Your task to perform on an android device: snooze an email in the gmail app Image 0: 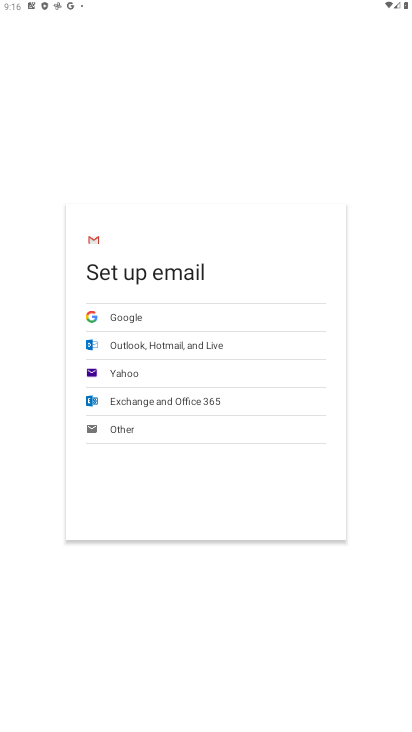
Step 0: press home button
Your task to perform on an android device: snooze an email in the gmail app Image 1: 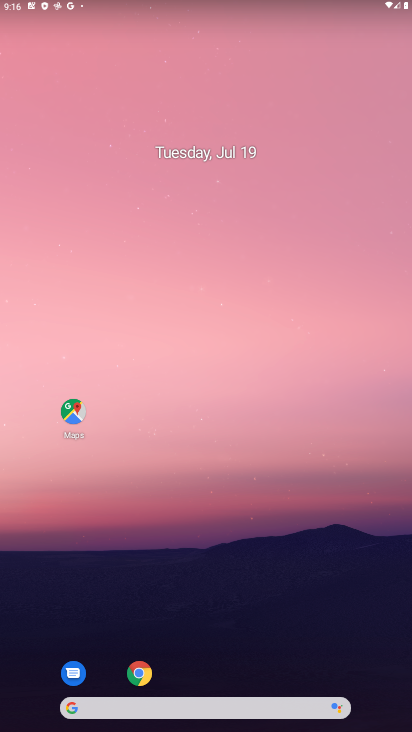
Step 1: drag from (228, 643) to (191, 323)
Your task to perform on an android device: snooze an email in the gmail app Image 2: 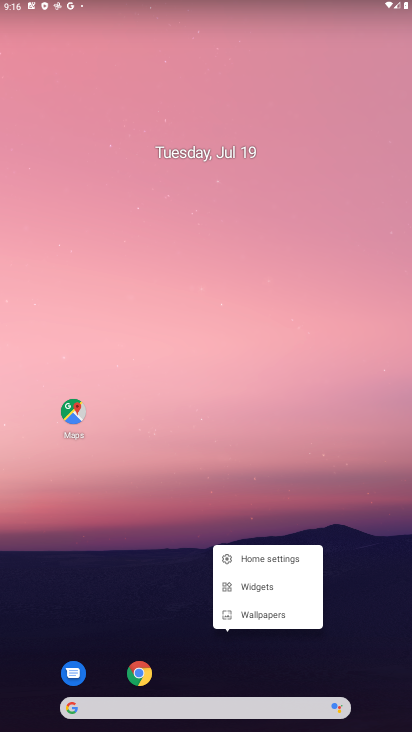
Step 2: click (236, 423)
Your task to perform on an android device: snooze an email in the gmail app Image 3: 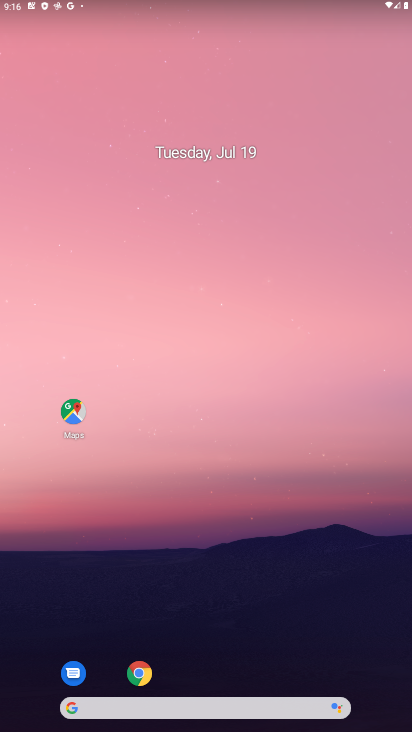
Step 3: drag from (208, 688) to (212, 239)
Your task to perform on an android device: snooze an email in the gmail app Image 4: 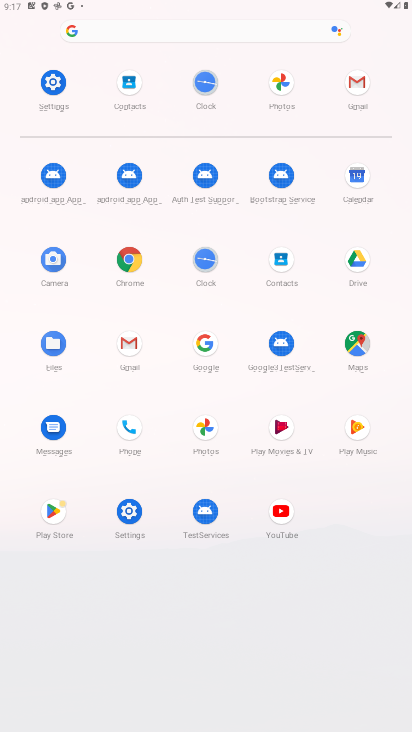
Step 4: click (340, 105)
Your task to perform on an android device: snooze an email in the gmail app Image 5: 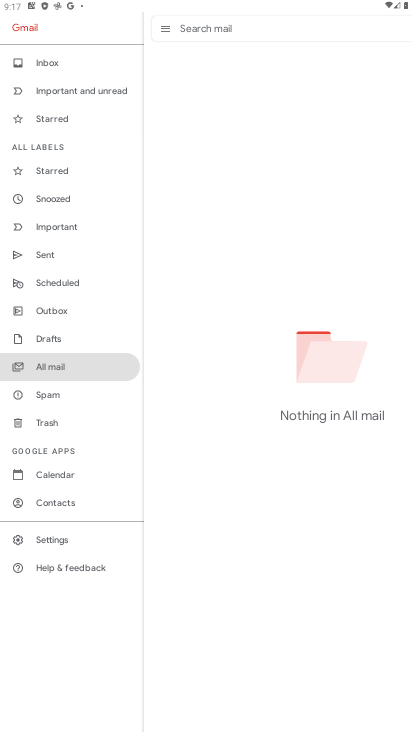
Step 5: click (91, 201)
Your task to perform on an android device: snooze an email in the gmail app Image 6: 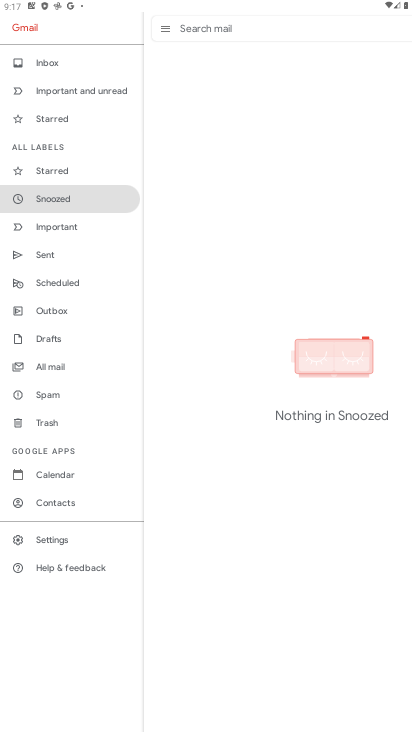
Step 6: task complete